Your task to perform on an android device: set the timer Image 0: 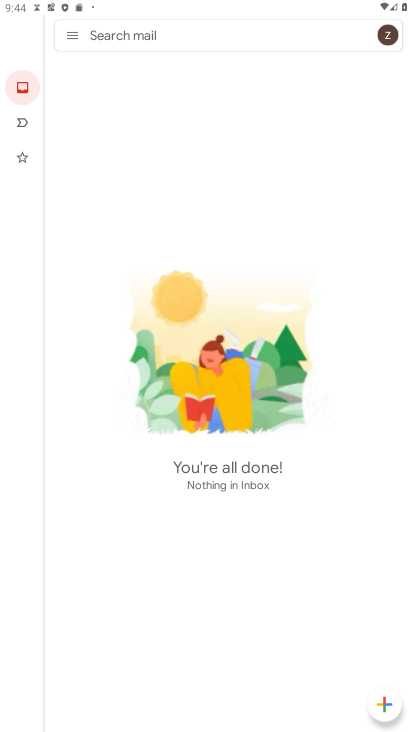
Step 0: press home button
Your task to perform on an android device: set the timer Image 1: 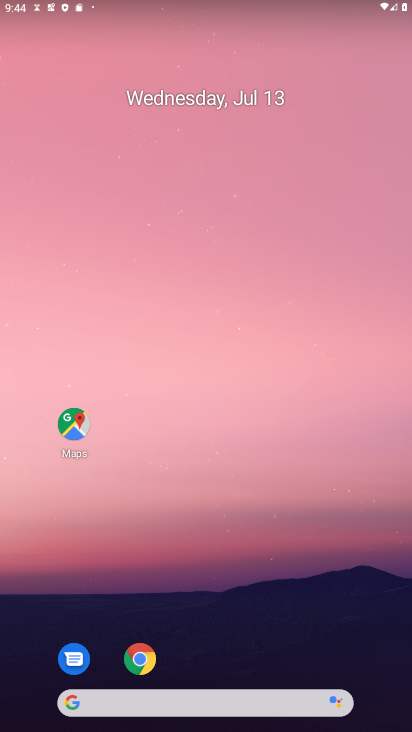
Step 1: drag from (195, 701) to (308, 17)
Your task to perform on an android device: set the timer Image 2: 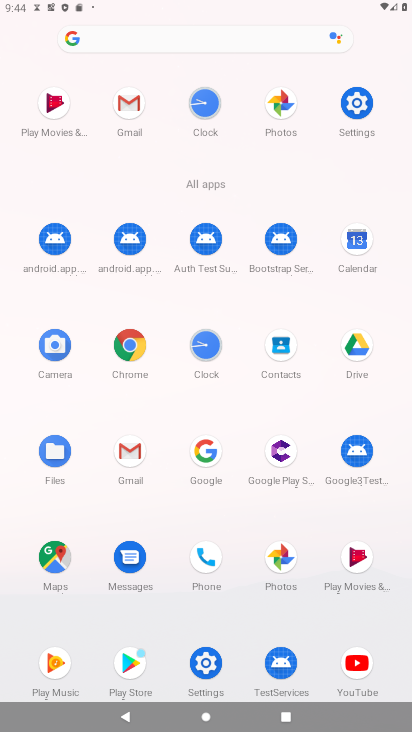
Step 2: click (358, 101)
Your task to perform on an android device: set the timer Image 3: 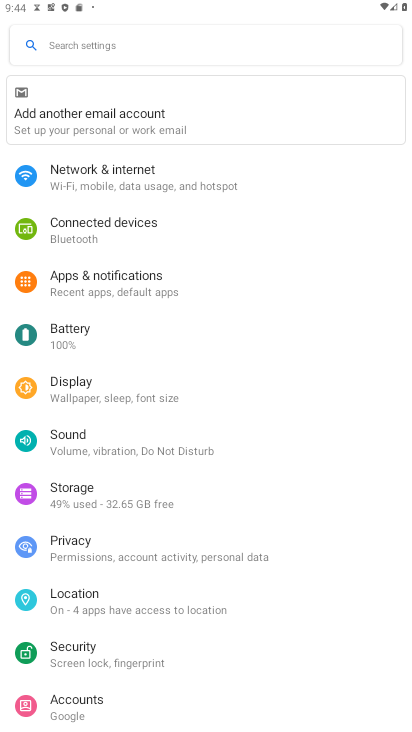
Step 3: press home button
Your task to perform on an android device: set the timer Image 4: 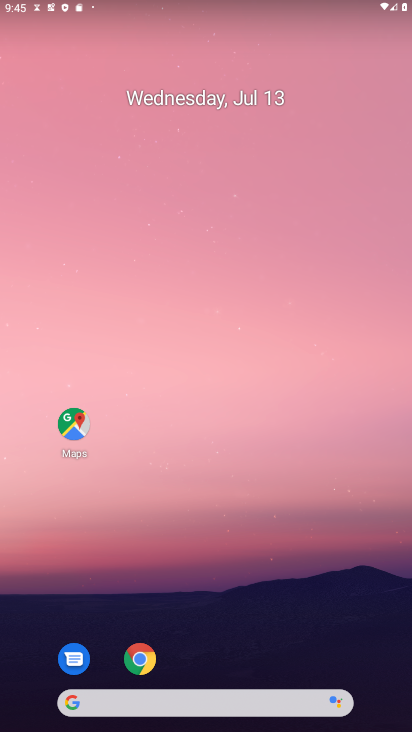
Step 4: drag from (190, 694) to (202, 120)
Your task to perform on an android device: set the timer Image 5: 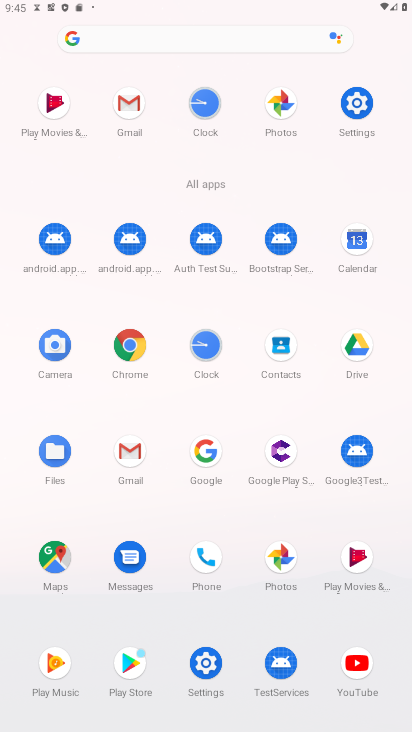
Step 5: click (206, 357)
Your task to perform on an android device: set the timer Image 6: 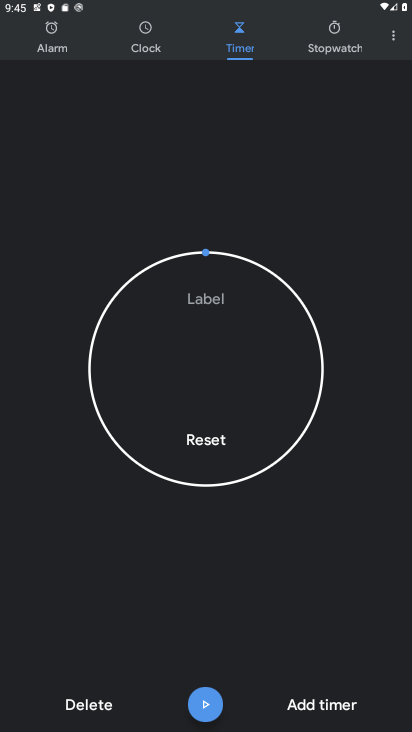
Step 6: click (106, 707)
Your task to perform on an android device: set the timer Image 7: 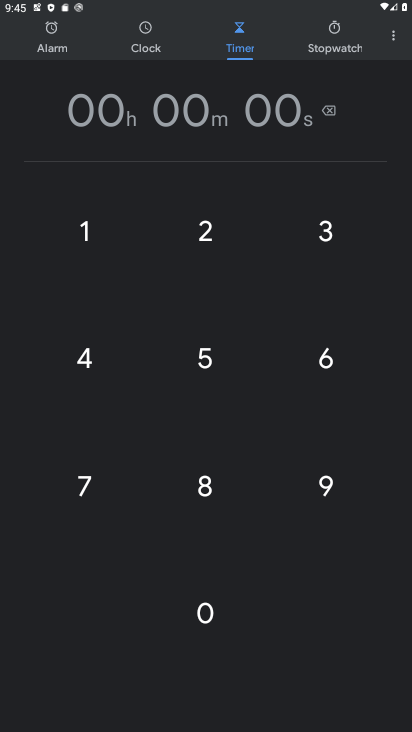
Step 7: click (189, 467)
Your task to perform on an android device: set the timer Image 8: 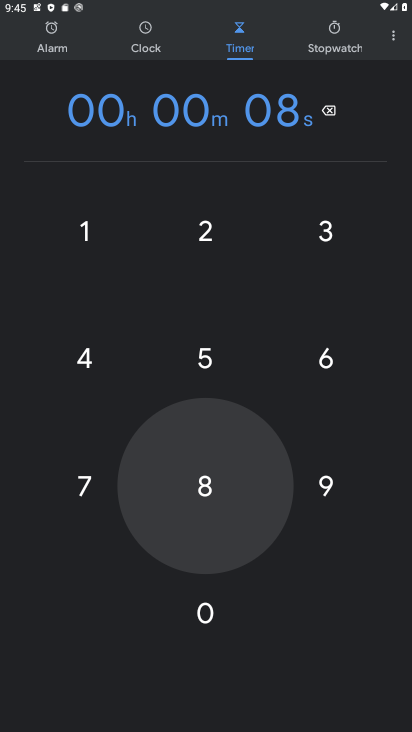
Step 8: click (203, 362)
Your task to perform on an android device: set the timer Image 9: 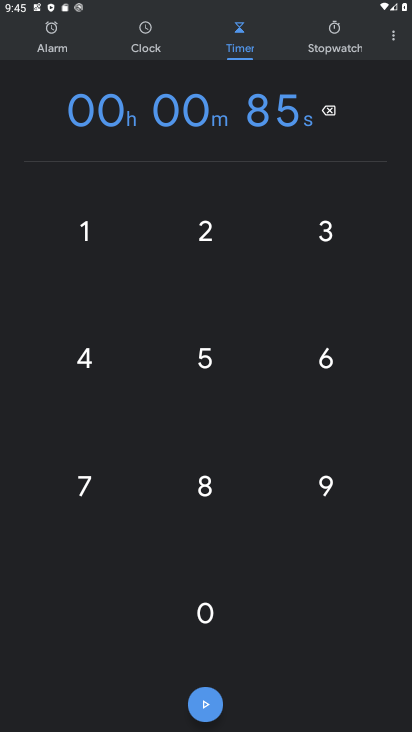
Step 9: click (95, 460)
Your task to perform on an android device: set the timer Image 10: 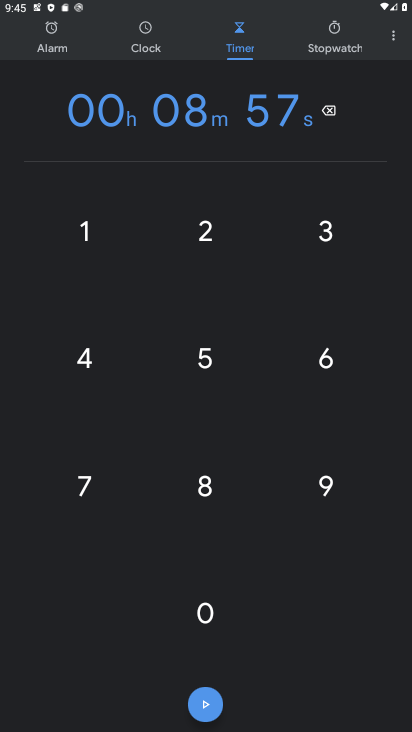
Step 10: click (208, 705)
Your task to perform on an android device: set the timer Image 11: 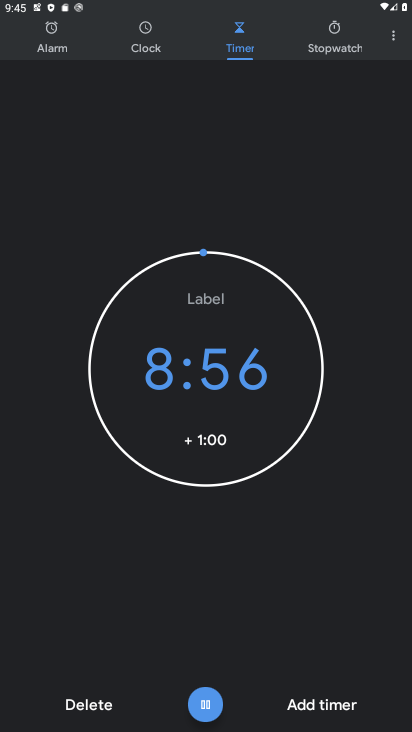
Step 11: task complete